Your task to perform on an android device: Add "apple airpods" to the cart on amazon Image 0: 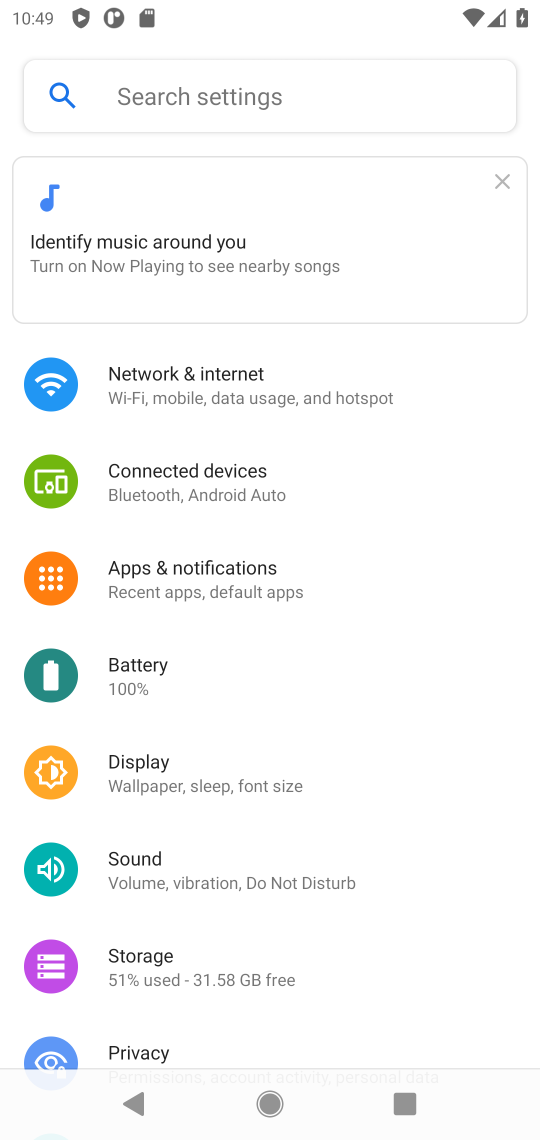
Step 0: press home button
Your task to perform on an android device: Add "apple airpods" to the cart on amazon Image 1: 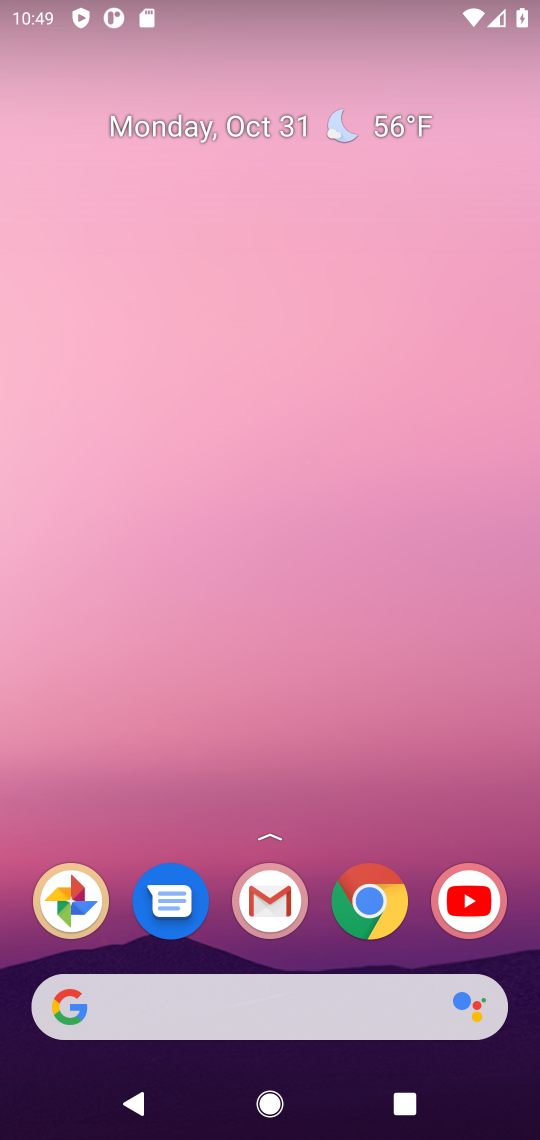
Step 1: drag from (233, 859) to (238, 644)
Your task to perform on an android device: Add "apple airpods" to the cart on amazon Image 2: 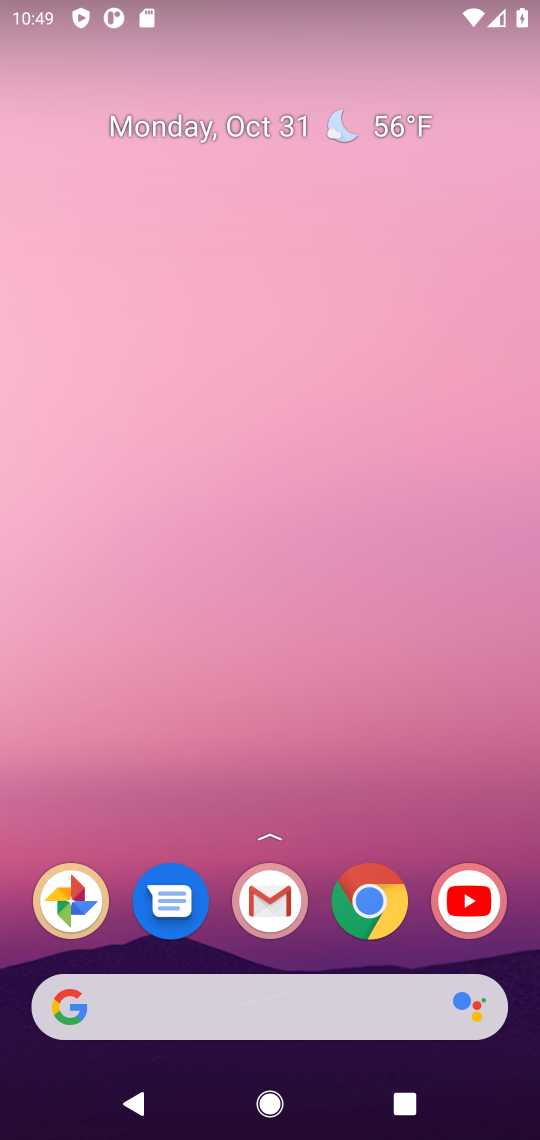
Step 2: drag from (216, 611) to (212, 461)
Your task to perform on an android device: Add "apple airpods" to the cart on amazon Image 3: 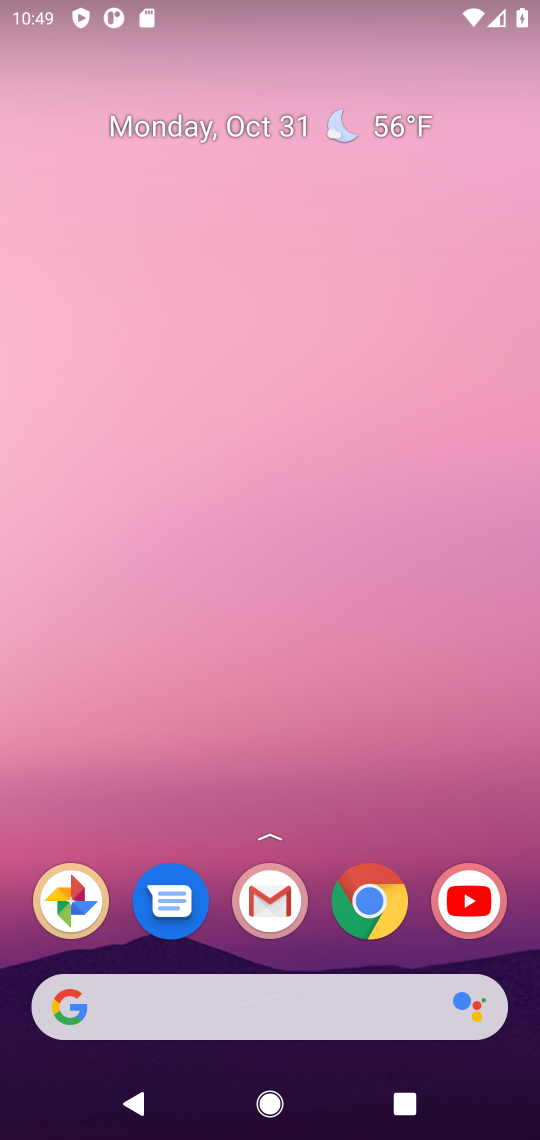
Step 3: drag from (203, 973) to (209, 175)
Your task to perform on an android device: Add "apple airpods" to the cart on amazon Image 4: 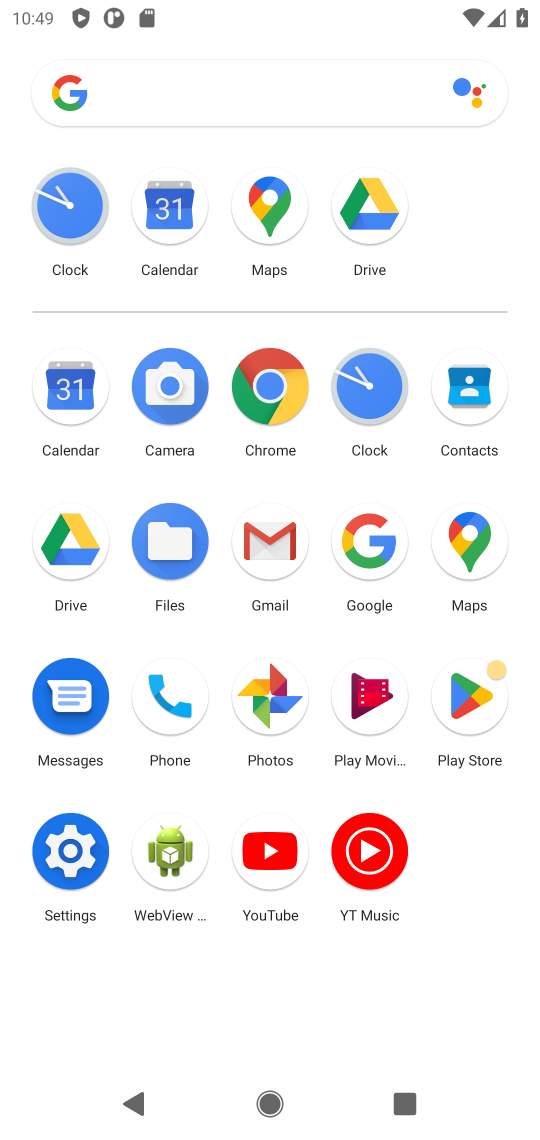
Step 4: click (371, 532)
Your task to perform on an android device: Add "apple airpods" to the cart on amazon Image 5: 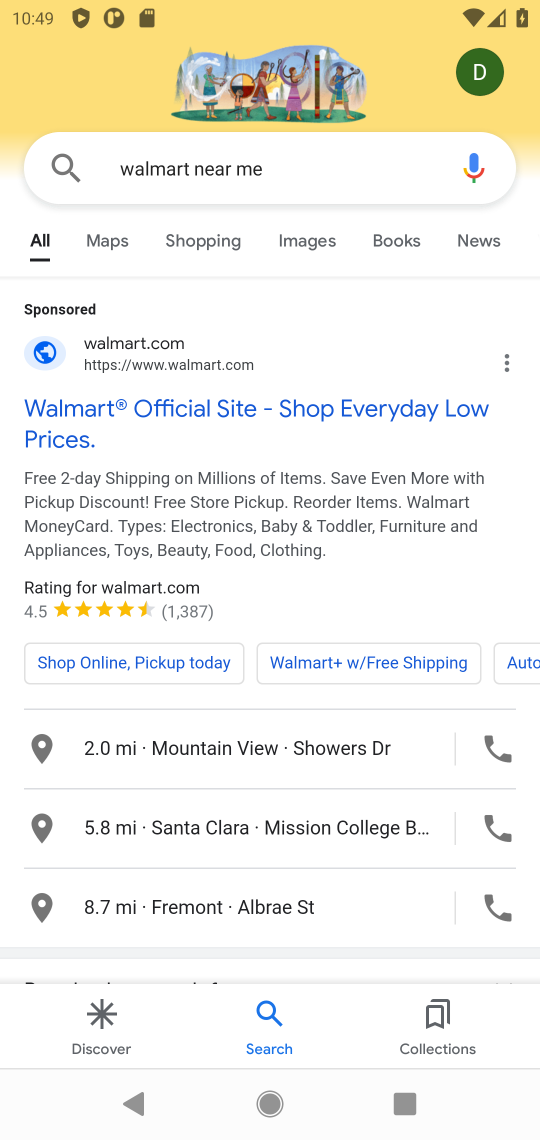
Step 5: click (304, 169)
Your task to perform on an android device: Add "apple airpods" to the cart on amazon Image 6: 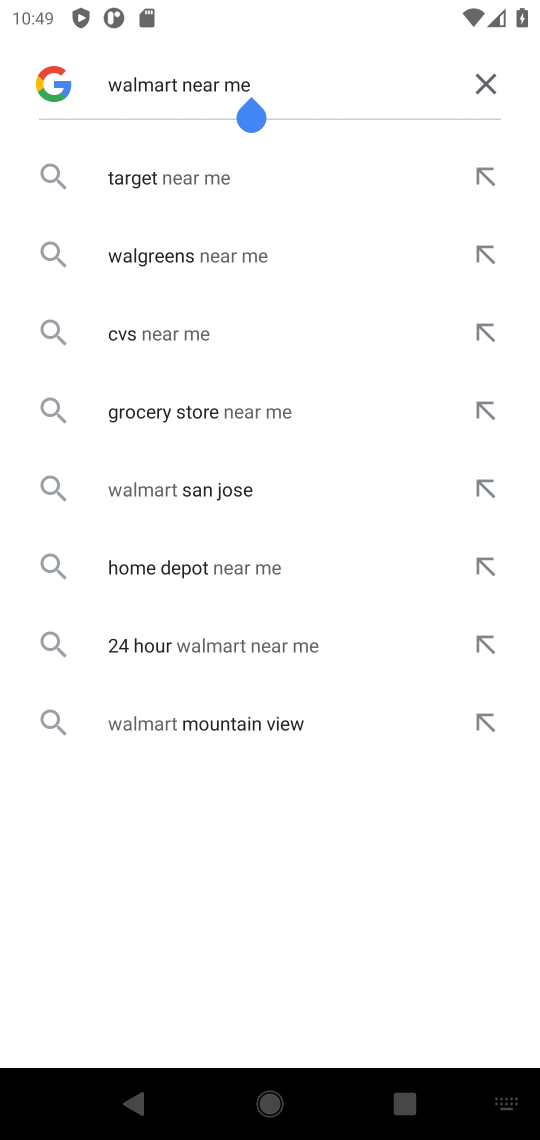
Step 6: click (479, 82)
Your task to perform on an android device: Add "apple airpods" to the cart on amazon Image 7: 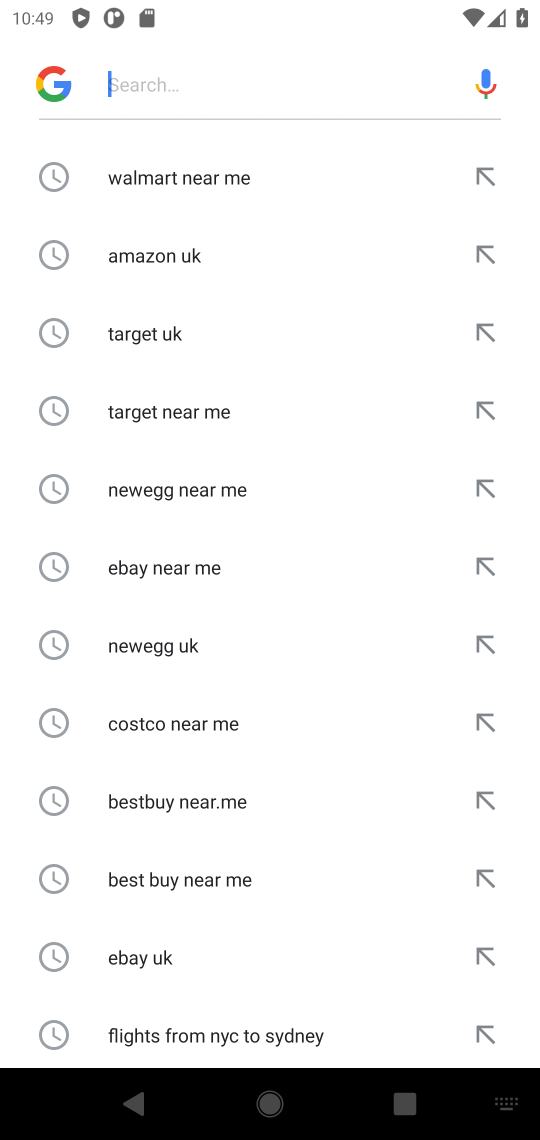
Step 7: click (174, 89)
Your task to perform on an android device: Add "apple airpods" to the cart on amazon Image 8: 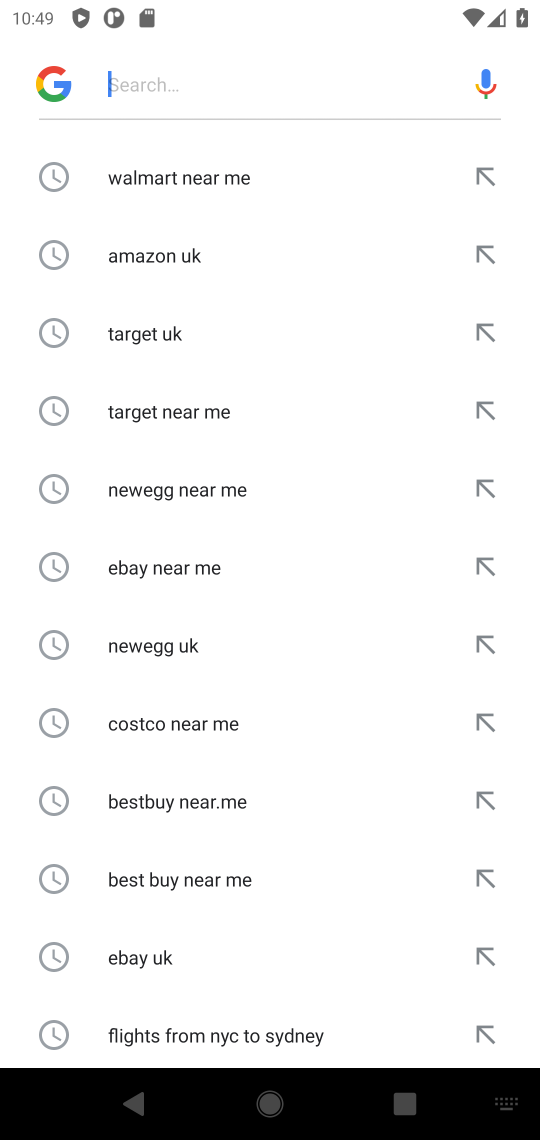
Step 8: type "amazon "
Your task to perform on an android device: Add "apple airpods" to the cart on amazon Image 9: 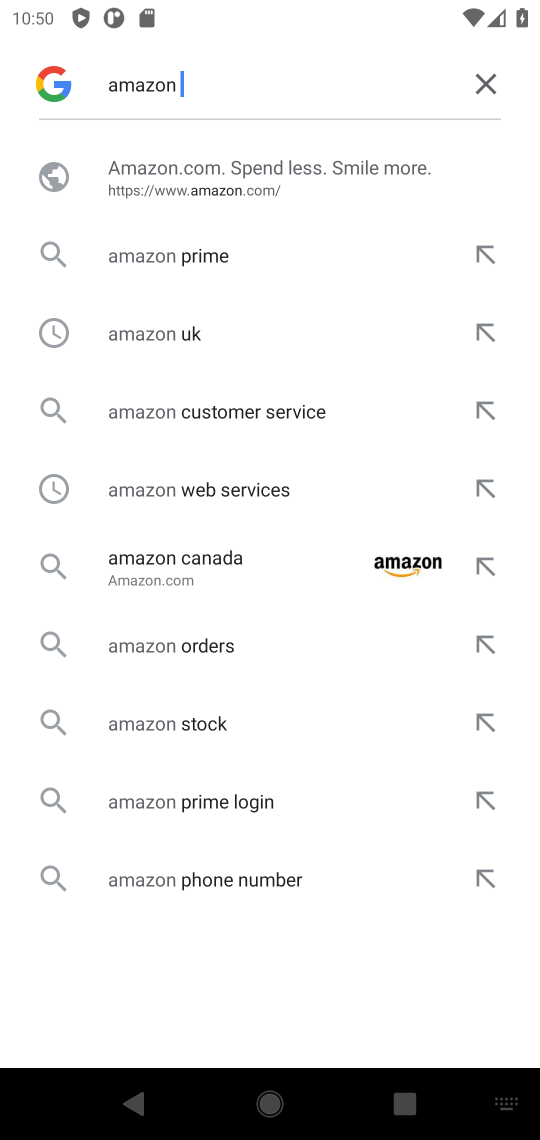
Step 9: click (142, 340)
Your task to perform on an android device: Add "apple airpods" to the cart on amazon Image 10: 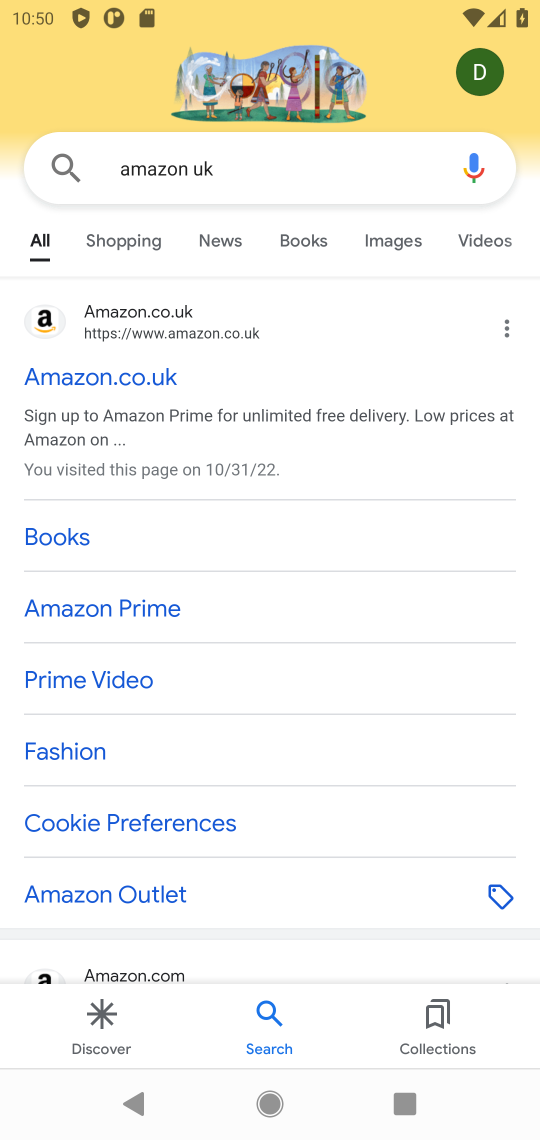
Step 10: click (88, 384)
Your task to perform on an android device: Add "apple airpods" to the cart on amazon Image 11: 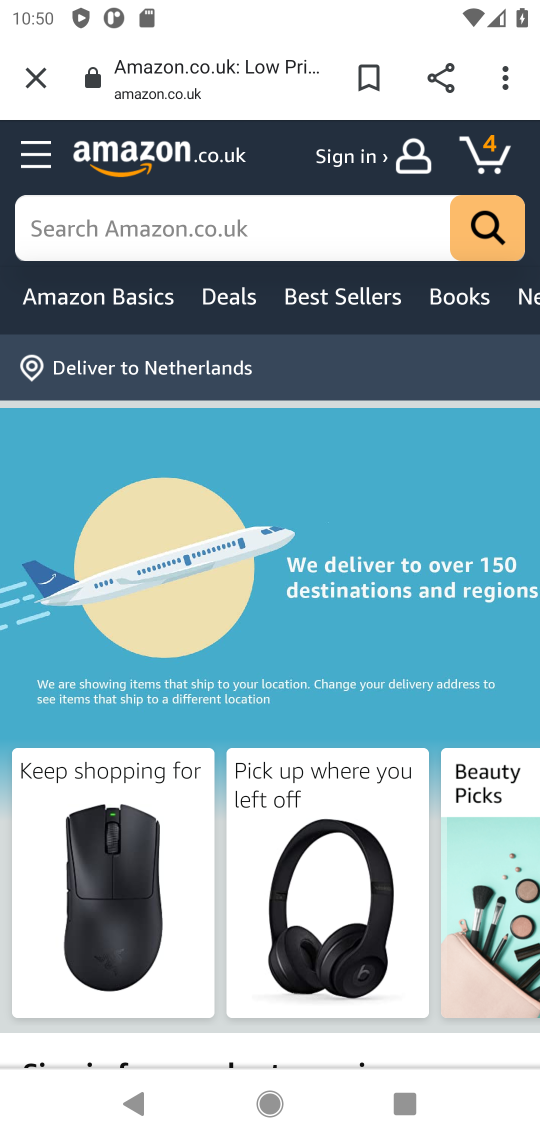
Step 11: click (236, 220)
Your task to perform on an android device: Add "apple airpods" to the cart on amazon Image 12: 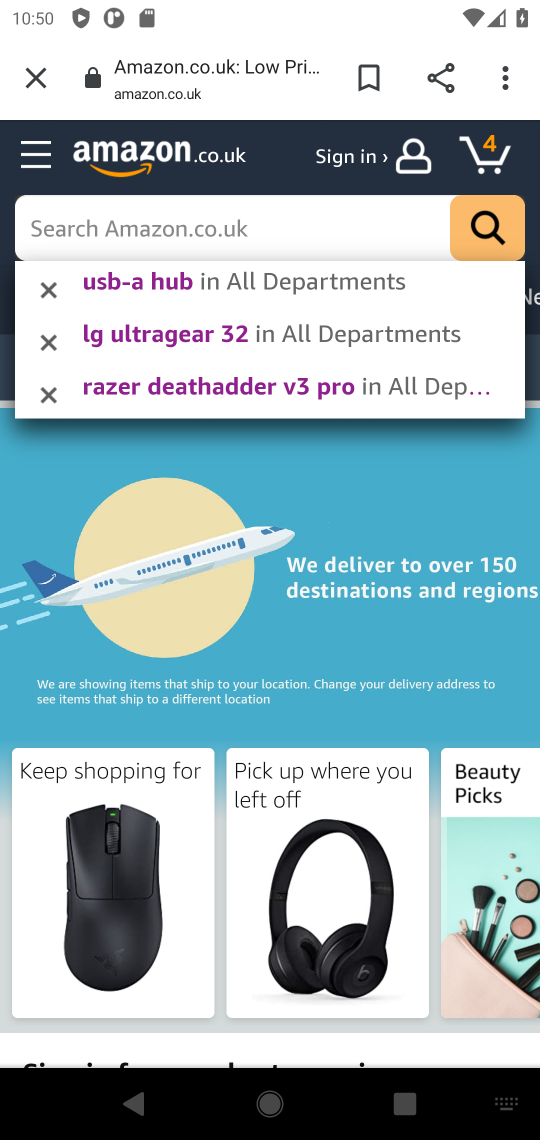
Step 12: type "airpods "
Your task to perform on an android device: Add "apple airpods" to the cart on amazon Image 13: 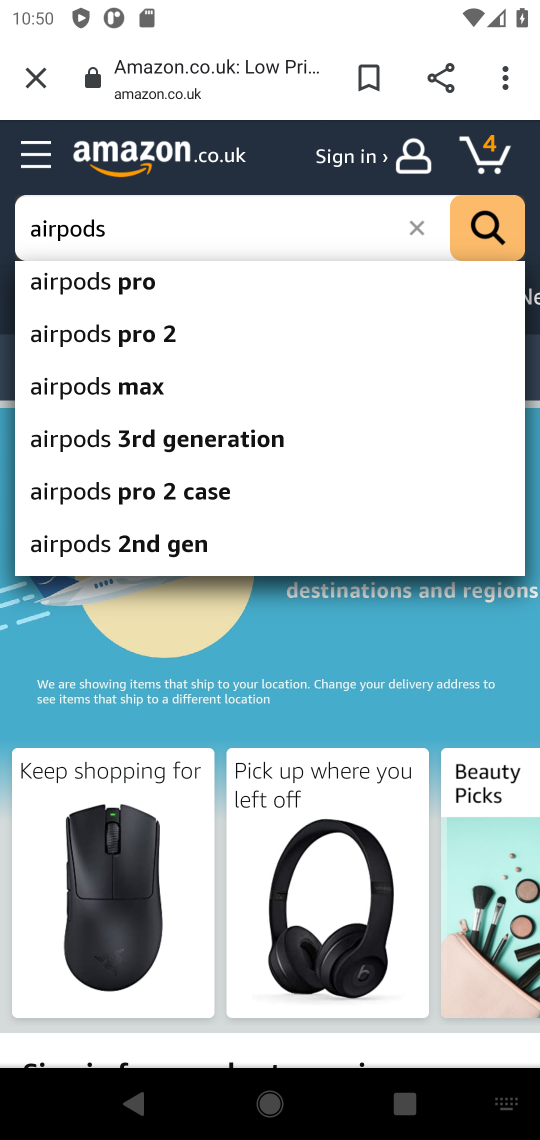
Step 13: click (93, 287)
Your task to perform on an android device: Add "apple airpods" to the cart on amazon Image 14: 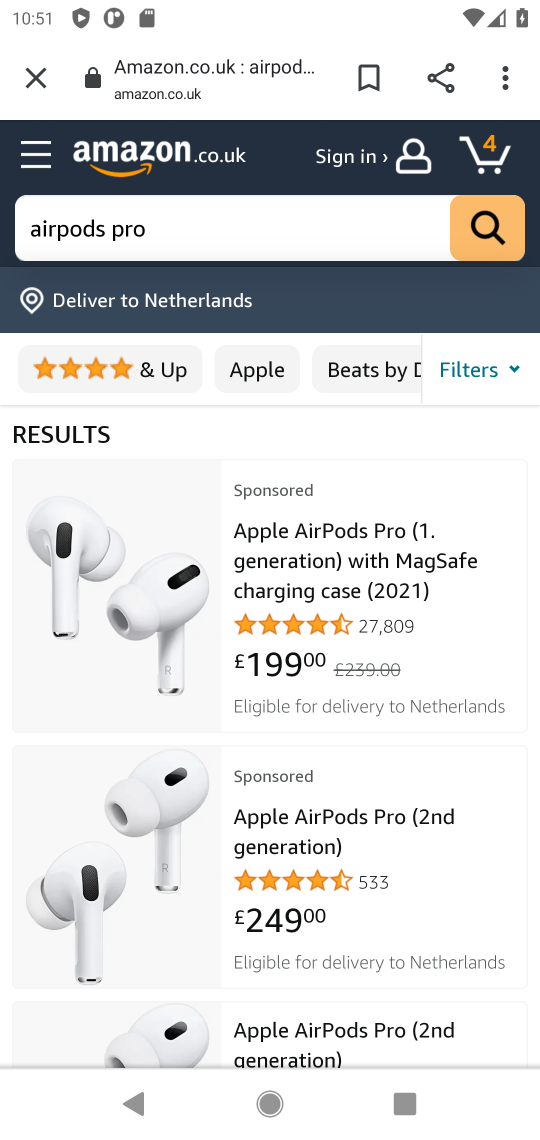
Step 14: click (284, 555)
Your task to perform on an android device: Add "apple airpods" to the cart on amazon Image 15: 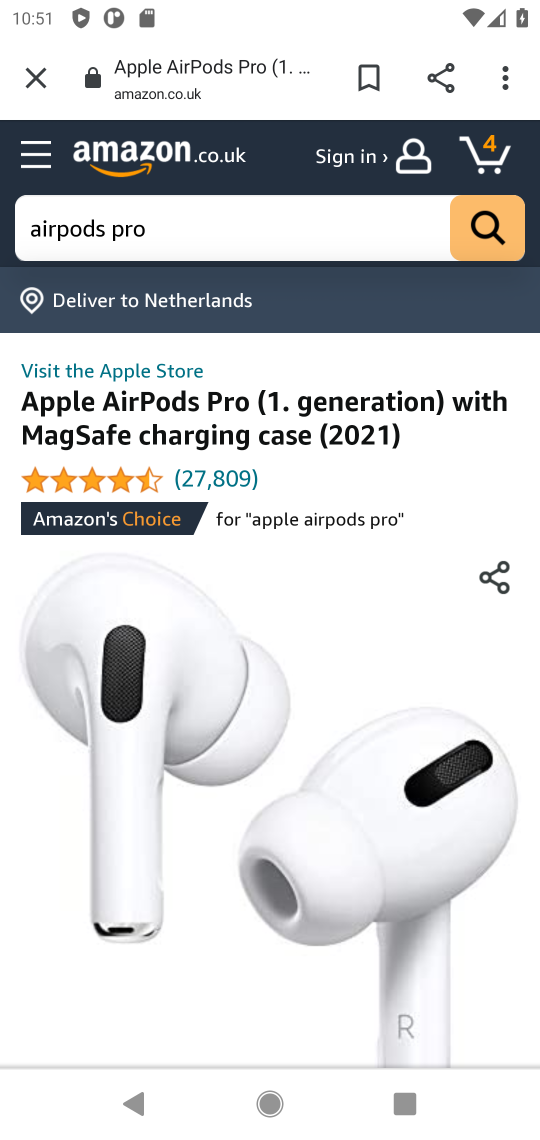
Step 15: drag from (290, 997) to (267, 441)
Your task to perform on an android device: Add "apple airpods" to the cart on amazon Image 16: 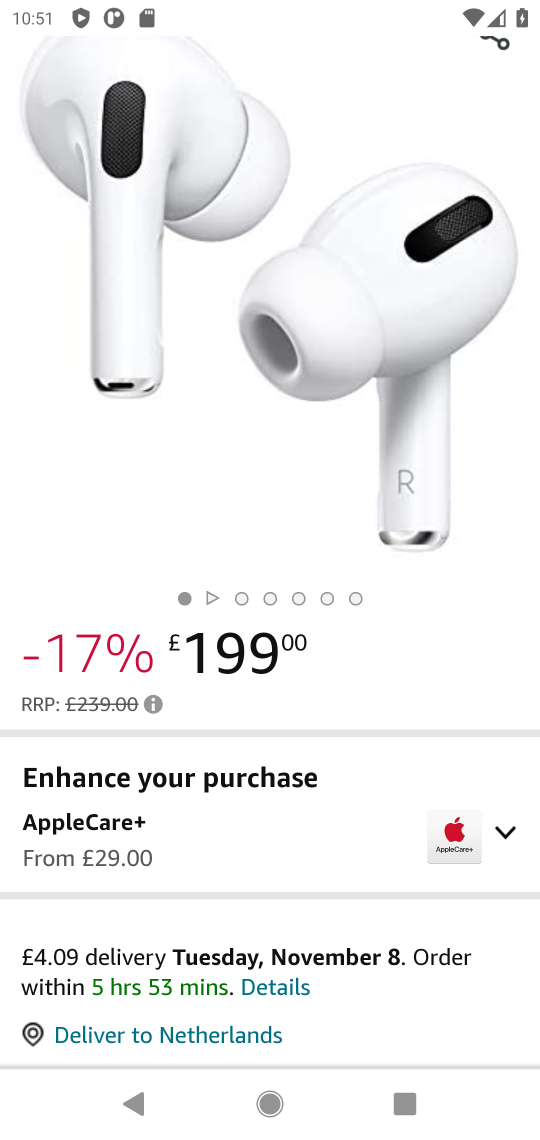
Step 16: drag from (224, 935) to (277, 491)
Your task to perform on an android device: Add "apple airpods" to the cart on amazon Image 17: 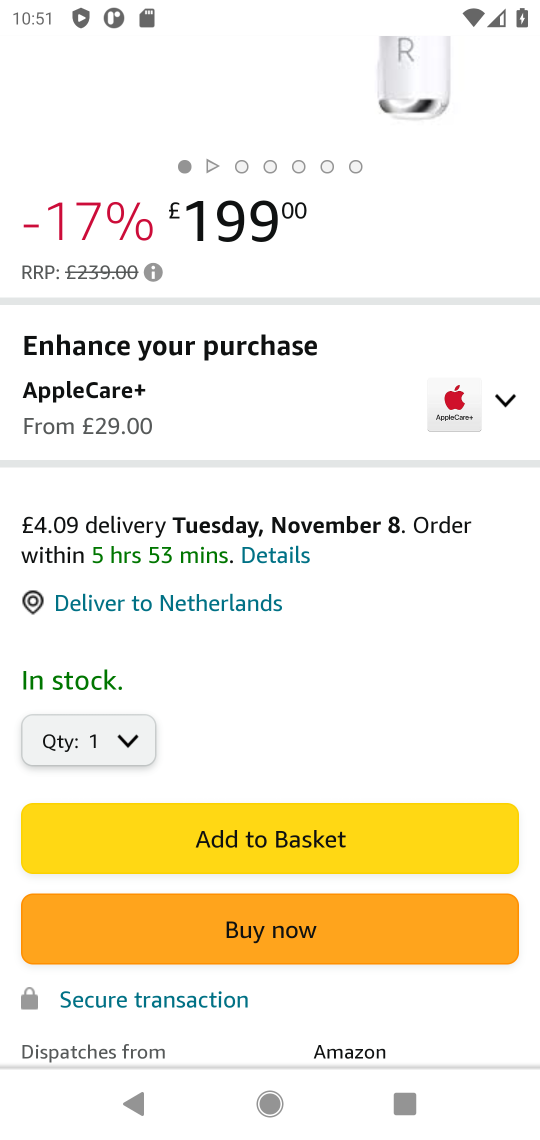
Step 17: click (292, 820)
Your task to perform on an android device: Add "apple airpods" to the cart on amazon Image 18: 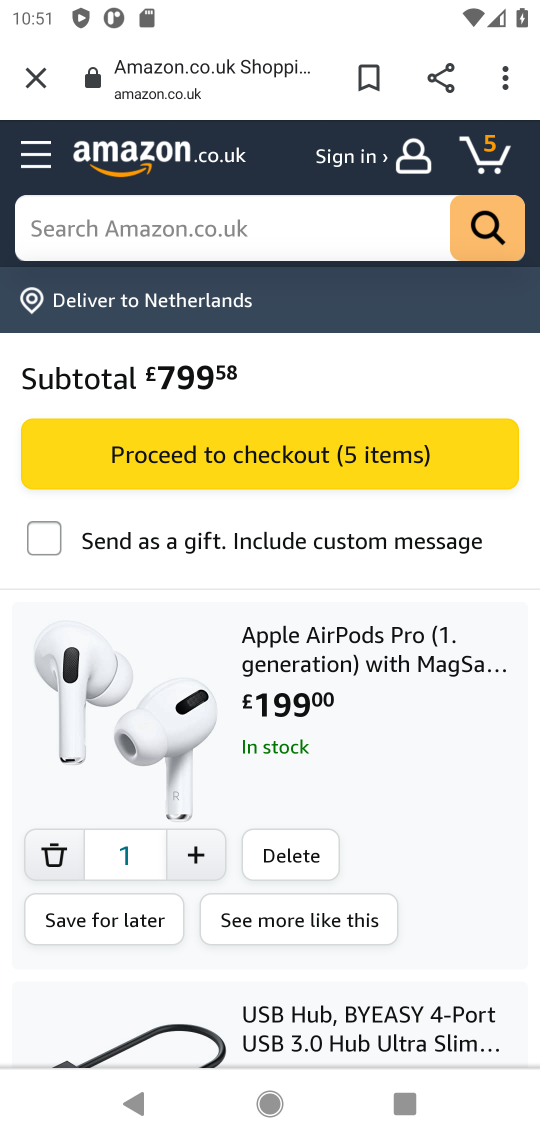
Step 18: task complete